Your task to perform on an android device: change the clock display to show seconds Image 0: 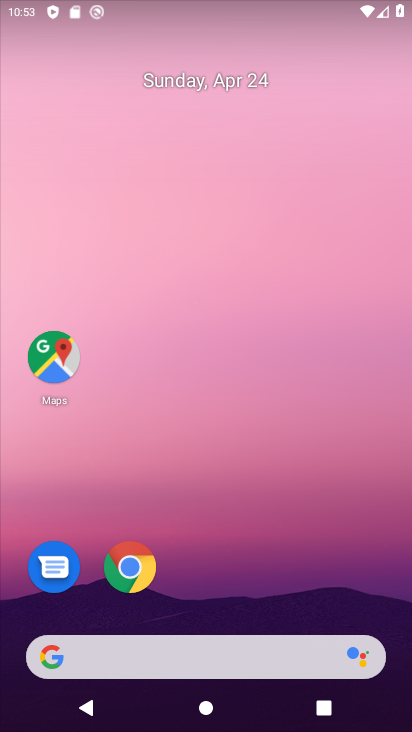
Step 0: drag from (310, 623) to (299, 94)
Your task to perform on an android device: change the clock display to show seconds Image 1: 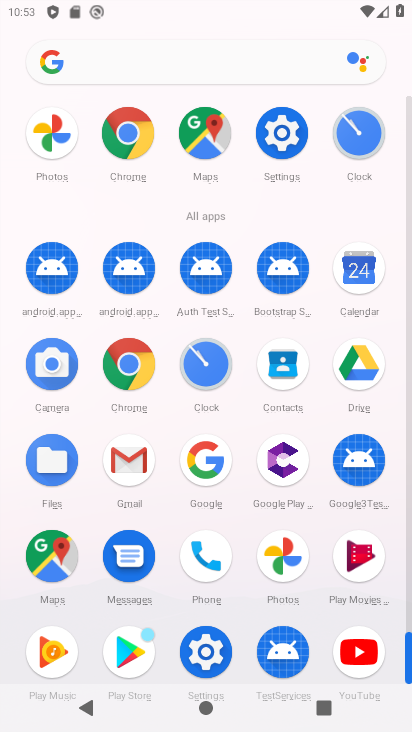
Step 1: click (221, 359)
Your task to perform on an android device: change the clock display to show seconds Image 2: 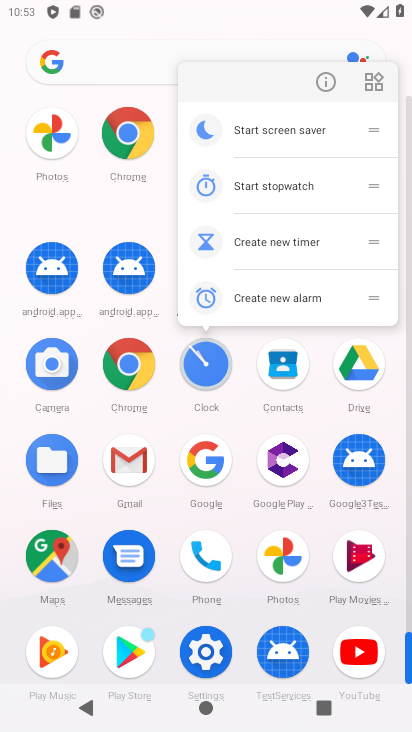
Step 2: click (222, 357)
Your task to perform on an android device: change the clock display to show seconds Image 3: 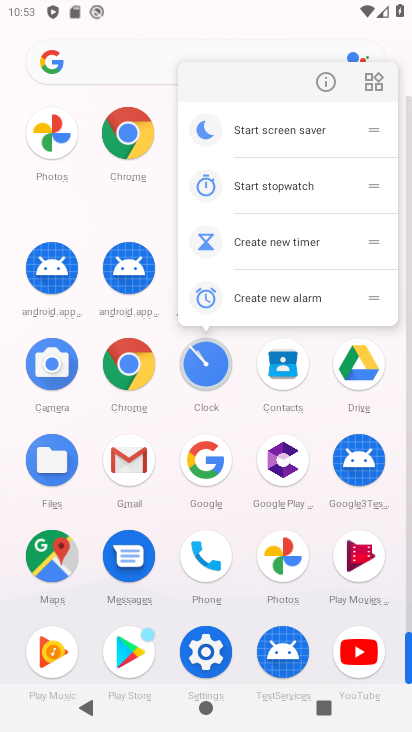
Step 3: click (211, 364)
Your task to perform on an android device: change the clock display to show seconds Image 4: 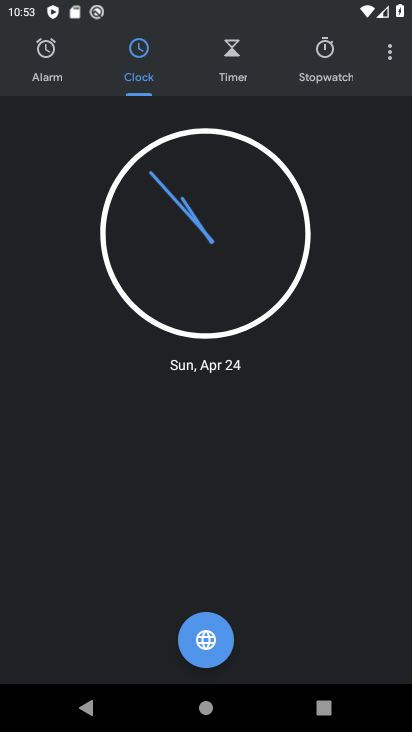
Step 4: click (393, 59)
Your task to perform on an android device: change the clock display to show seconds Image 5: 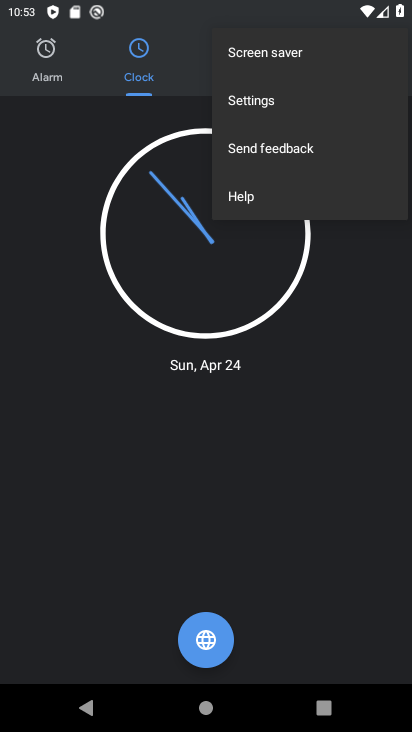
Step 5: click (316, 98)
Your task to perform on an android device: change the clock display to show seconds Image 6: 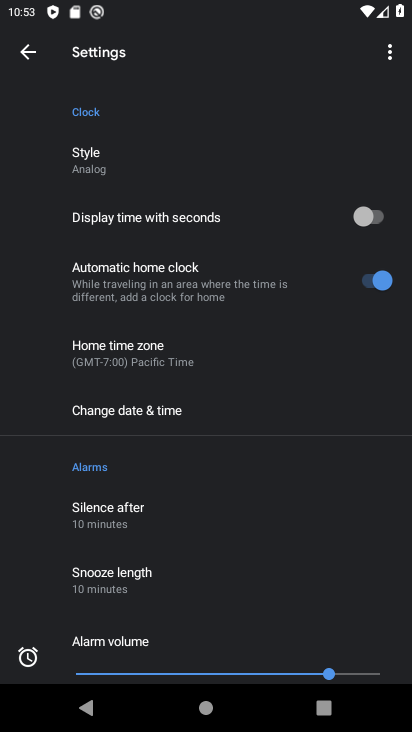
Step 6: task complete